Your task to perform on an android device: find which apps use the phone's location Image 0: 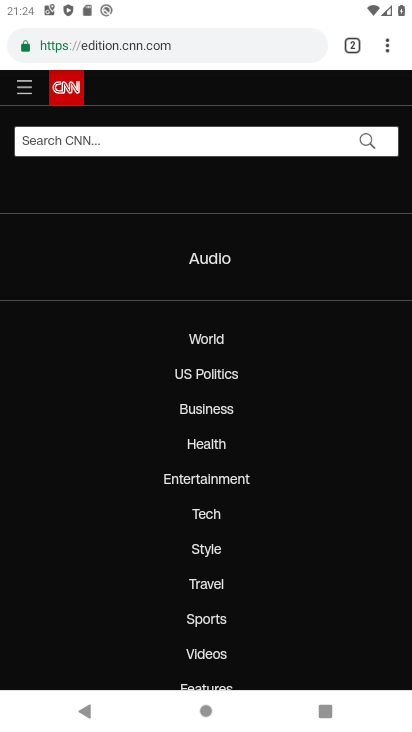
Step 0: press home button
Your task to perform on an android device: find which apps use the phone's location Image 1: 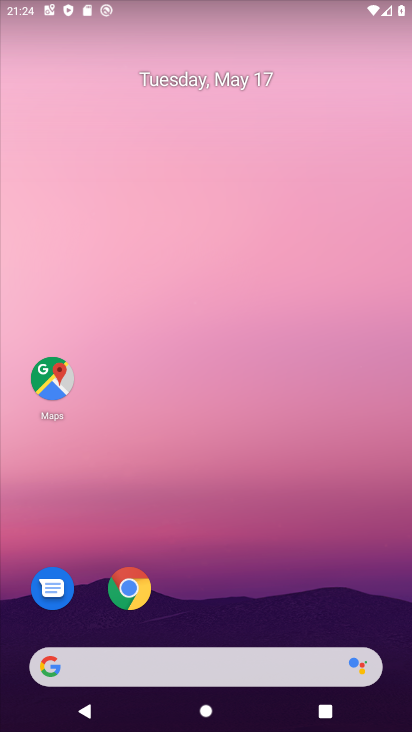
Step 1: drag from (209, 648) to (158, 60)
Your task to perform on an android device: find which apps use the phone's location Image 2: 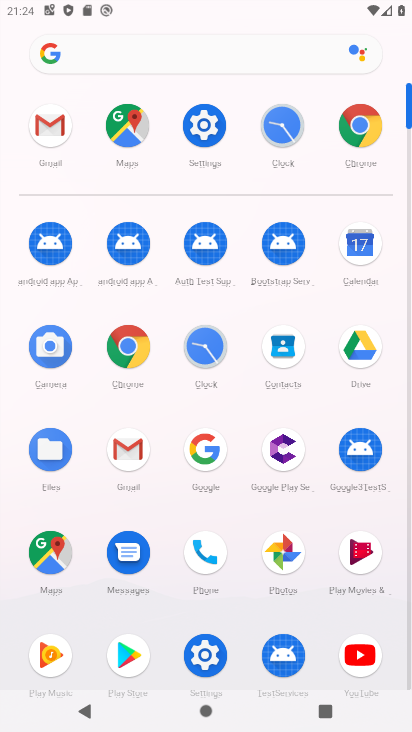
Step 2: click (209, 138)
Your task to perform on an android device: find which apps use the phone's location Image 3: 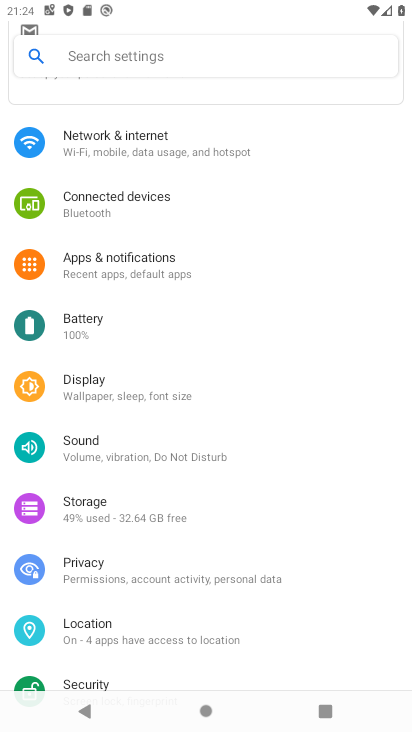
Step 3: click (97, 624)
Your task to perform on an android device: find which apps use the phone's location Image 4: 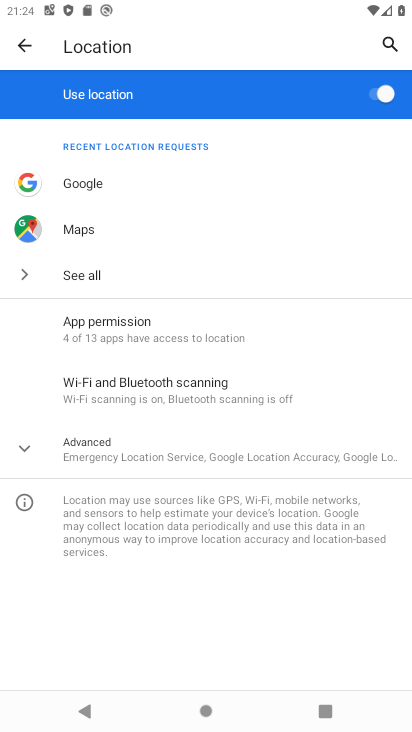
Step 4: click (147, 330)
Your task to perform on an android device: find which apps use the phone's location Image 5: 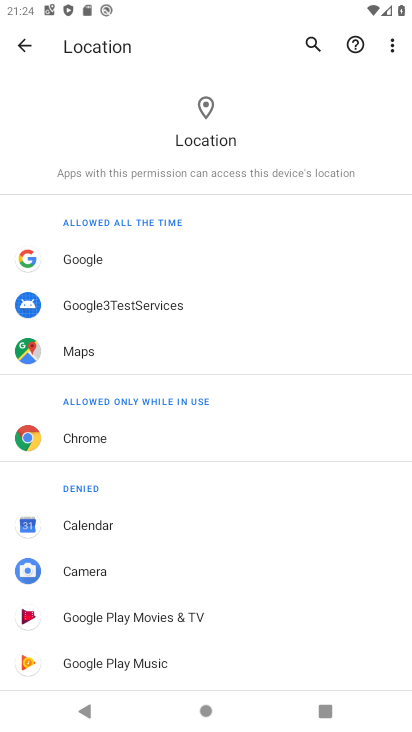
Step 5: click (17, 39)
Your task to perform on an android device: find which apps use the phone's location Image 6: 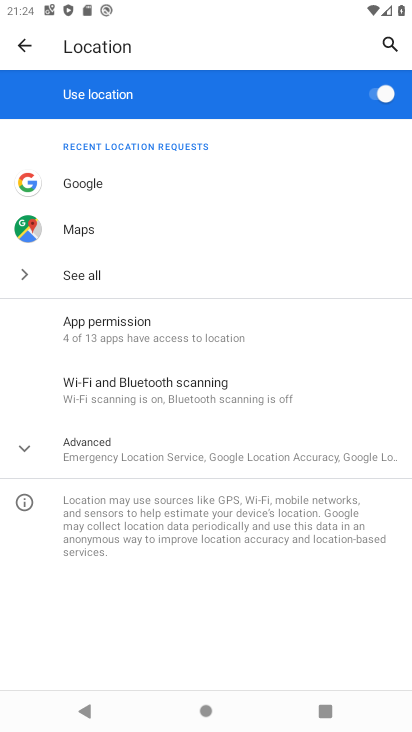
Step 6: task complete